Your task to perform on an android device: star an email in the gmail app Image 0: 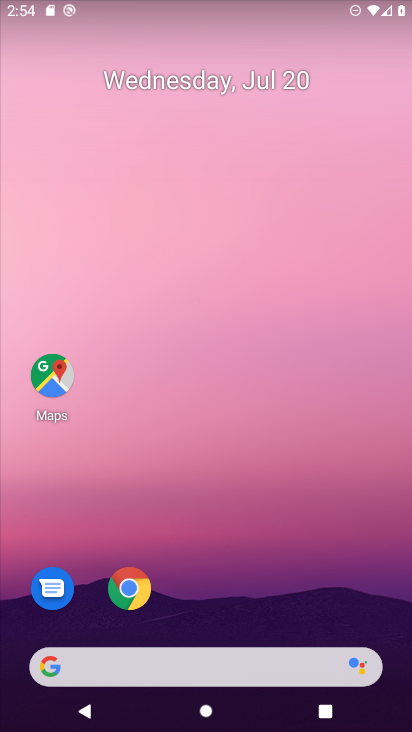
Step 0: drag from (238, 614) to (197, 385)
Your task to perform on an android device: star an email in the gmail app Image 1: 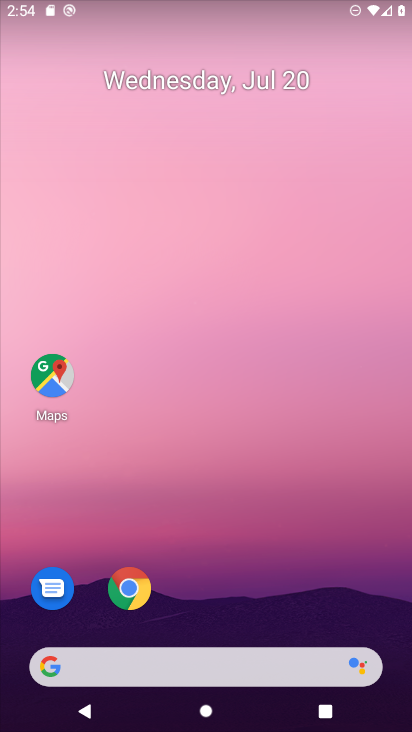
Step 1: drag from (225, 612) to (162, 208)
Your task to perform on an android device: star an email in the gmail app Image 2: 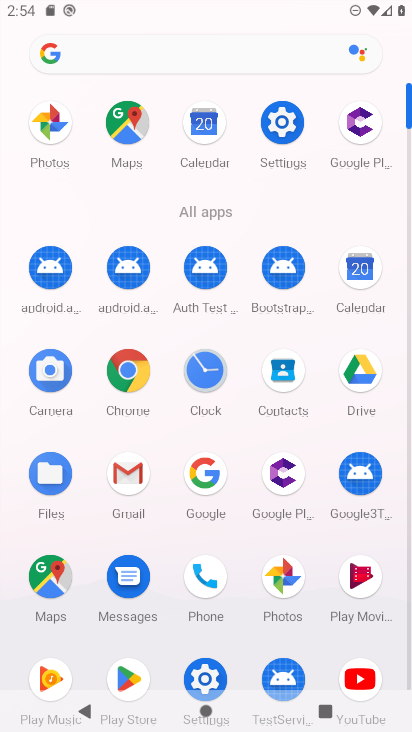
Step 2: click (130, 476)
Your task to perform on an android device: star an email in the gmail app Image 3: 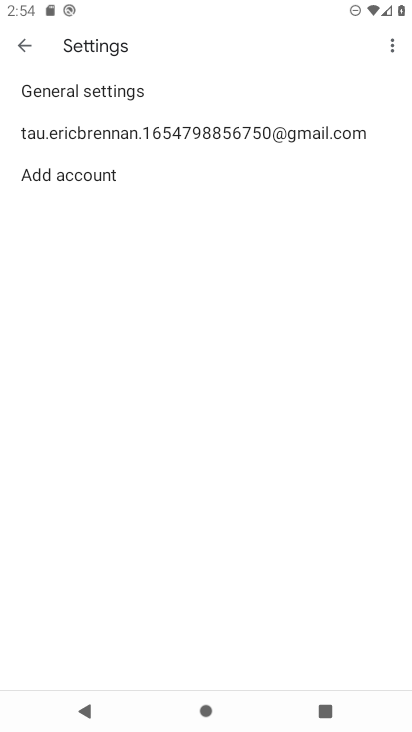
Step 3: click (23, 53)
Your task to perform on an android device: star an email in the gmail app Image 4: 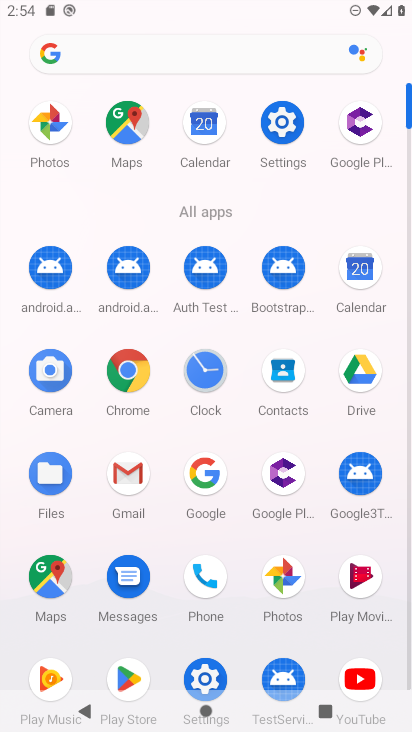
Step 4: click (134, 474)
Your task to perform on an android device: star an email in the gmail app Image 5: 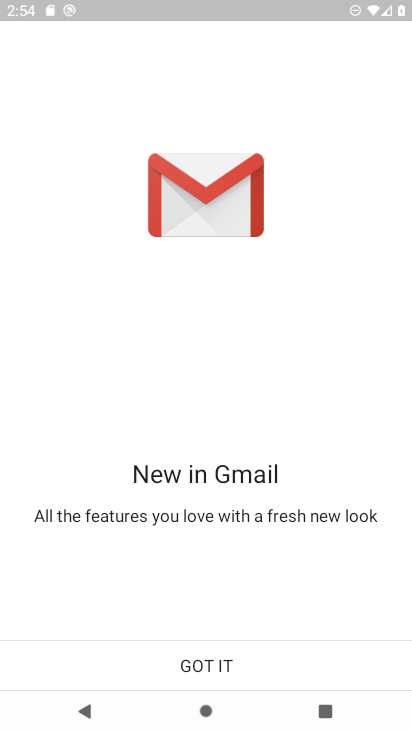
Step 5: click (155, 664)
Your task to perform on an android device: star an email in the gmail app Image 6: 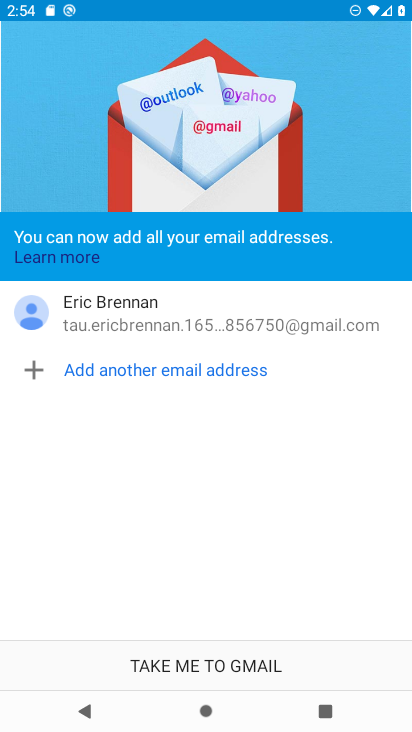
Step 6: click (155, 664)
Your task to perform on an android device: star an email in the gmail app Image 7: 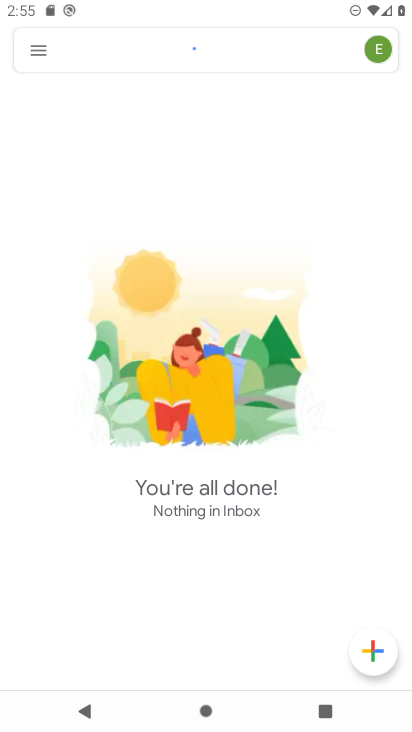
Step 7: task complete